Your task to perform on an android device: Search for "bose soundsport free" on bestbuy.com, select the first entry, and add it to the cart. Image 0: 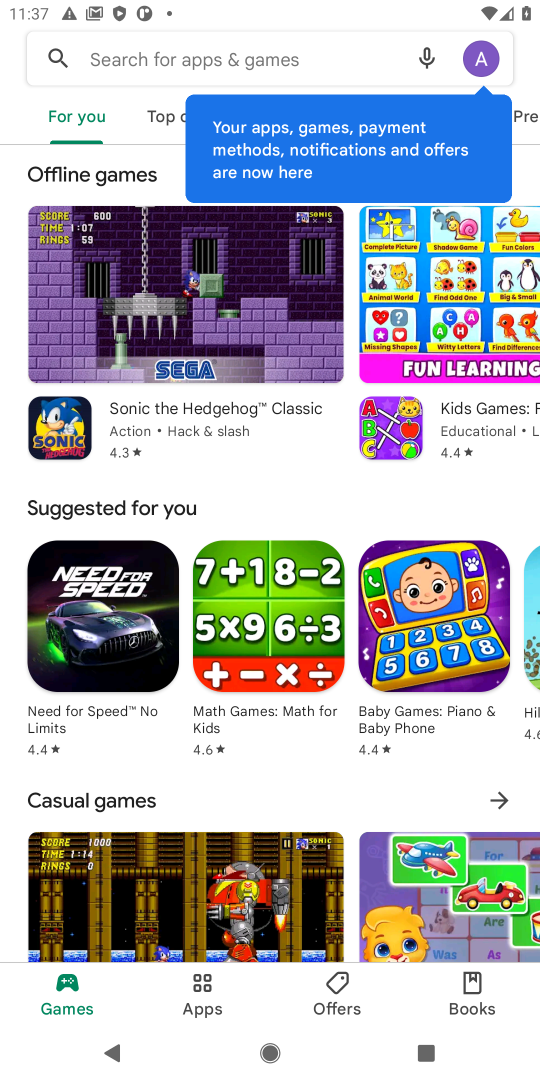
Step 0: task complete